Your task to perform on an android device: Search for razer blade on target.com, select the first entry, add it to the cart, then select checkout. Image 0: 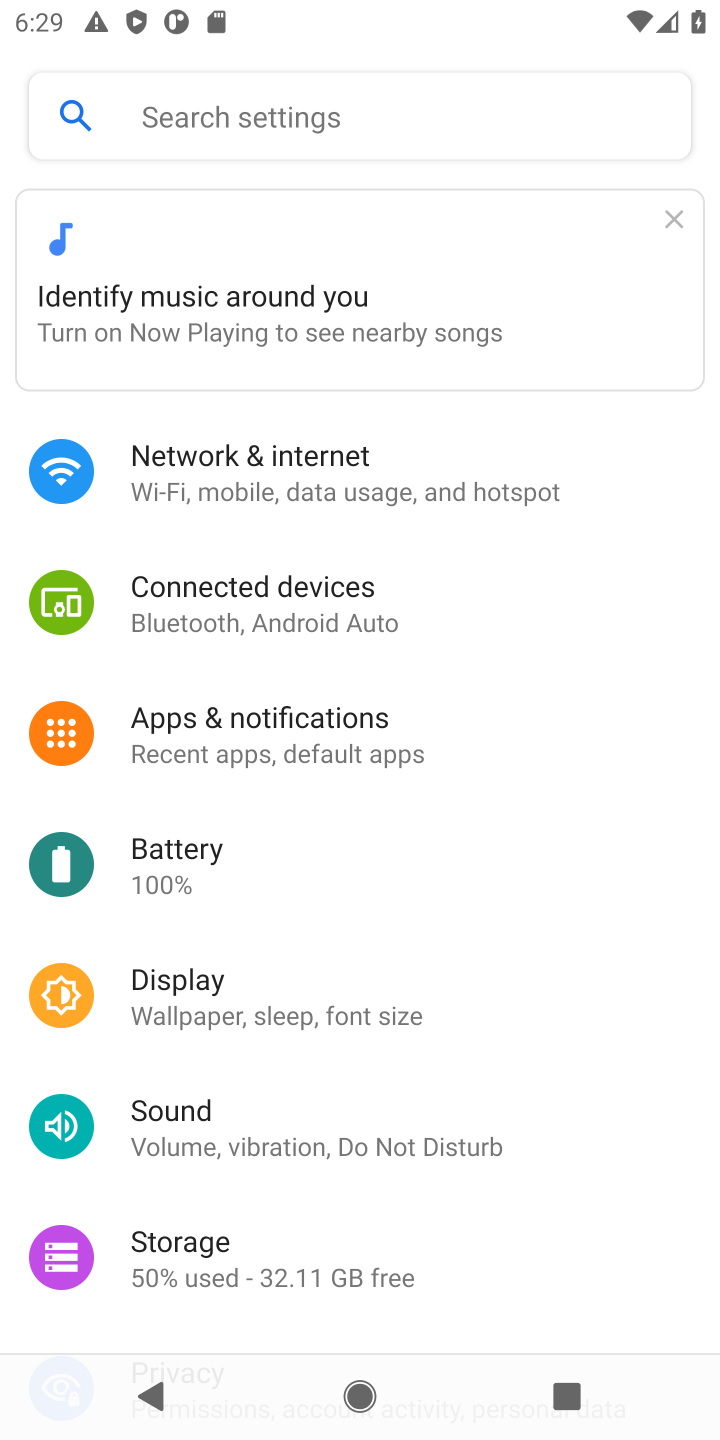
Step 0: press home button
Your task to perform on an android device: Search for razer blade on target.com, select the first entry, add it to the cart, then select checkout. Image 1: 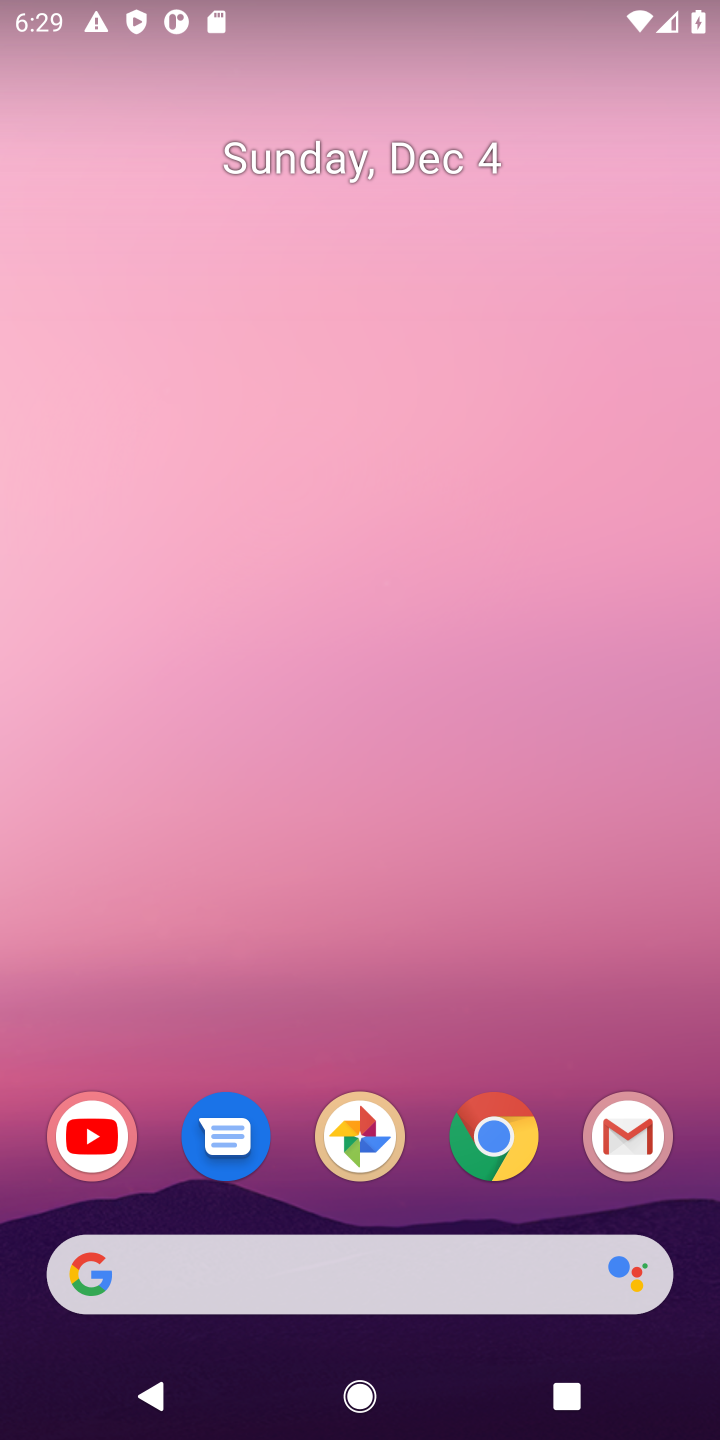
Step 1: click (501, 1137)
Your task to perform on an android device: Search for razer blade on target.com, select the first entry, add it to the cart, then select checkout. Image 2: 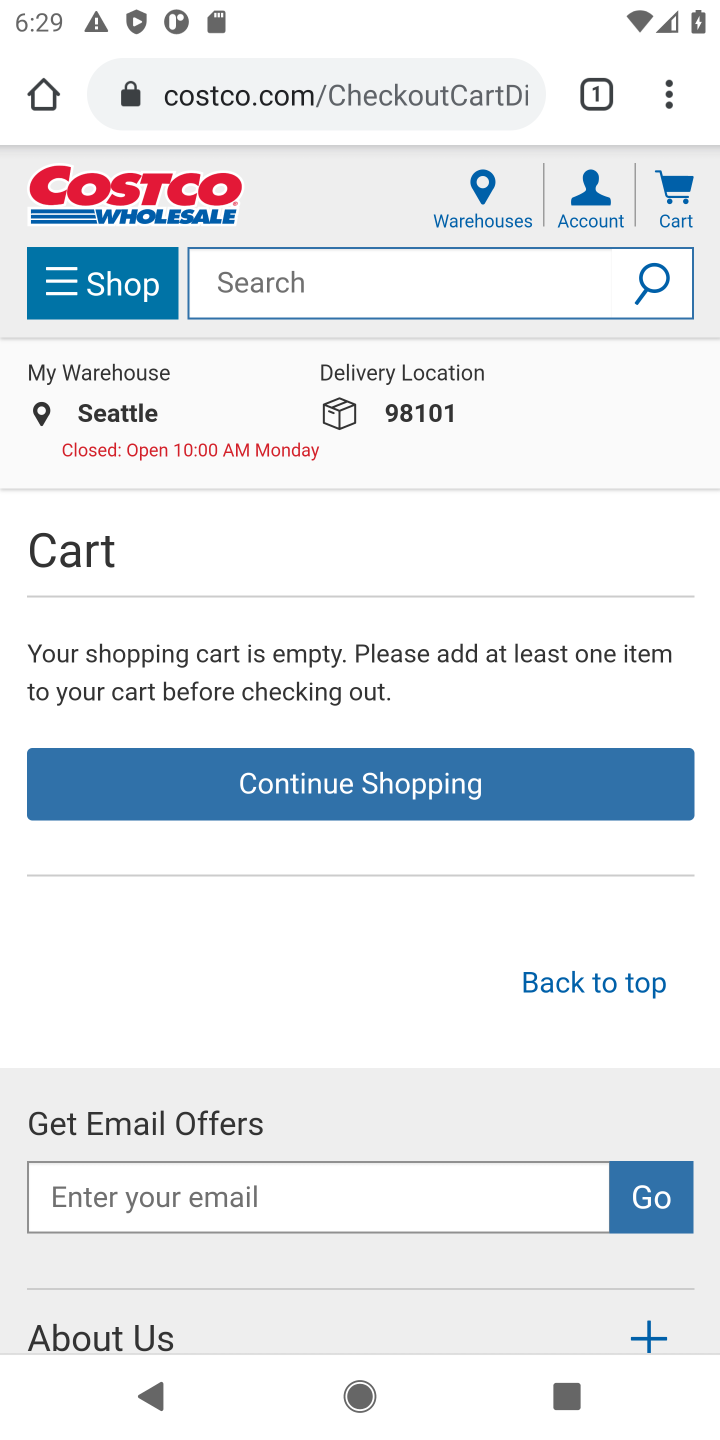
Step 2: click (310, 94)
Your task to perform on an android device: Search for razer blade on target.com, select the first entry, add it to the cart, then select checkout. Image 3: 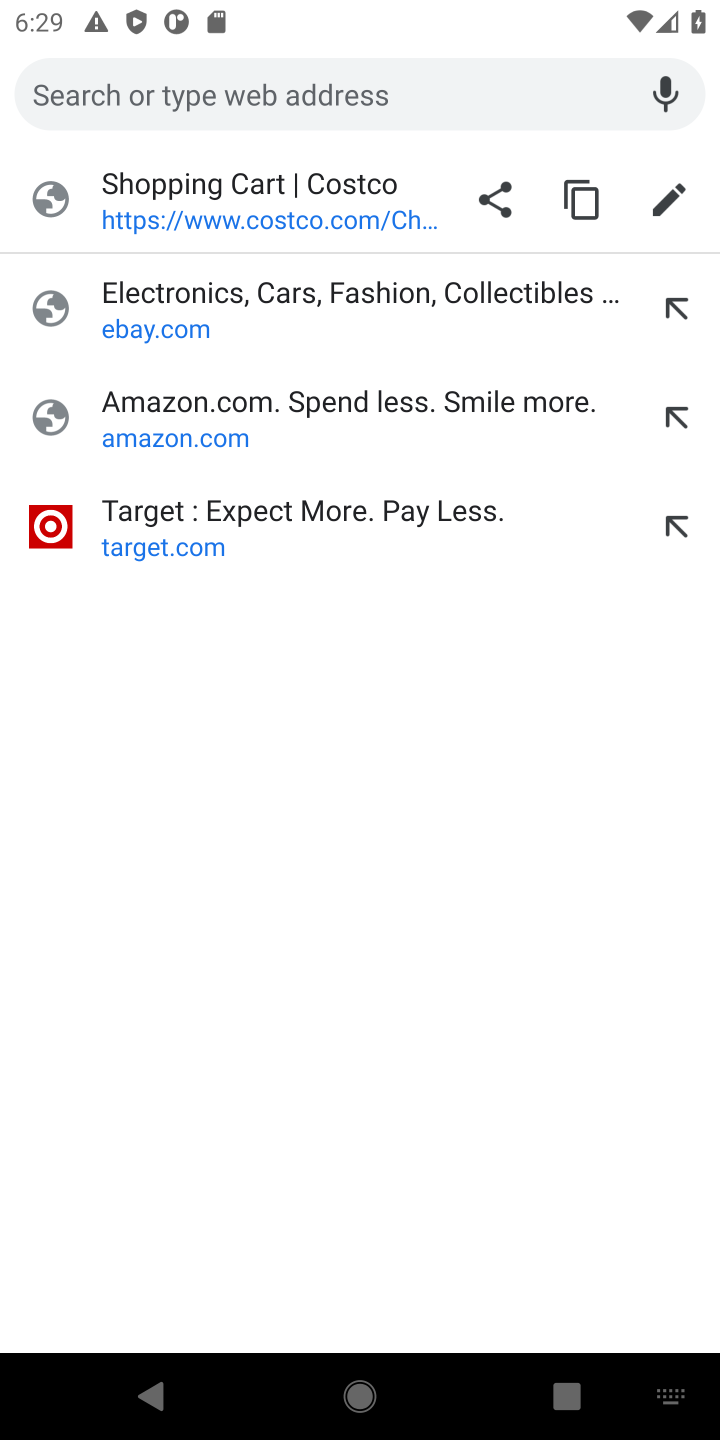
Step 3: click (163, 527)
Your task to perform on an android device: Search for razer blade on target.com, select the first entry, add it to the cart, then select checkout. Image 4: 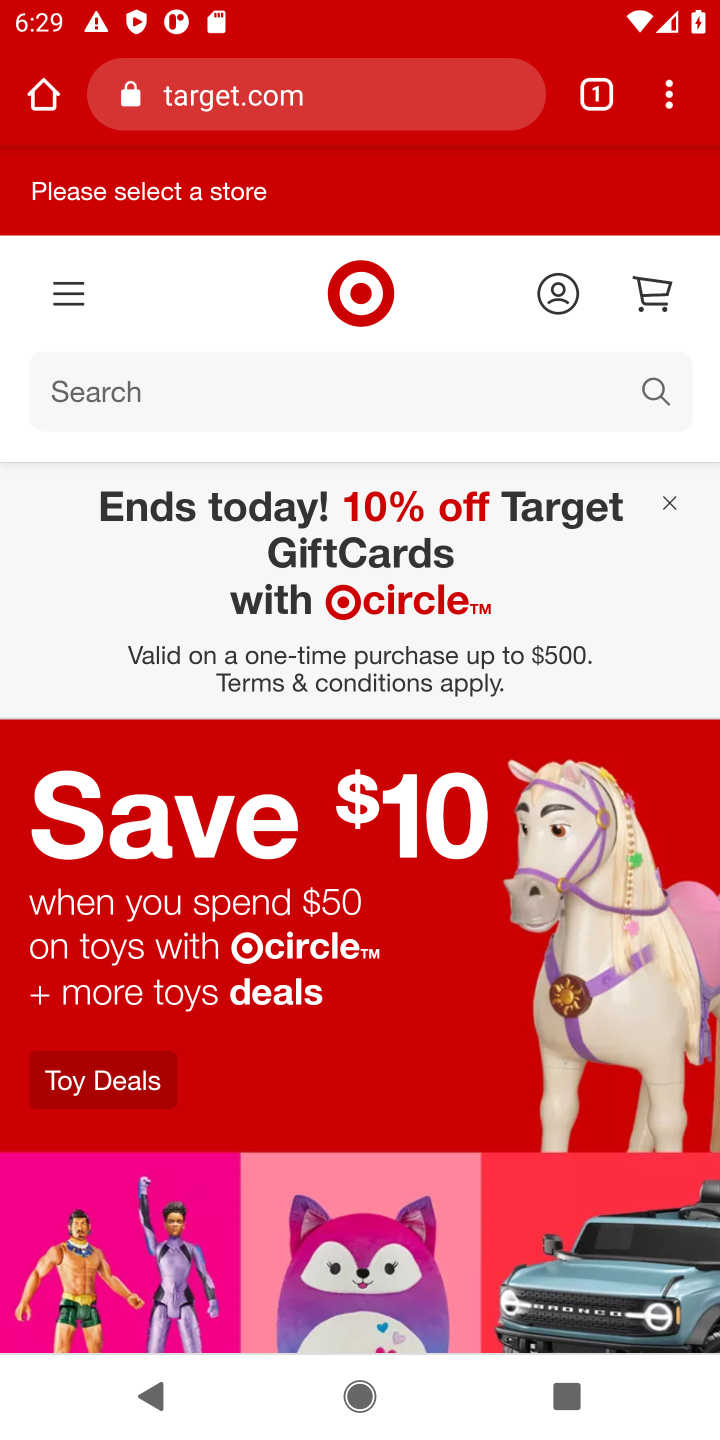
Step 4: click (107, 391)
Your task to perform on an android device: Search for razer blade on target.com, select the first entry, add it to the cart, then select checkout. Image 5: 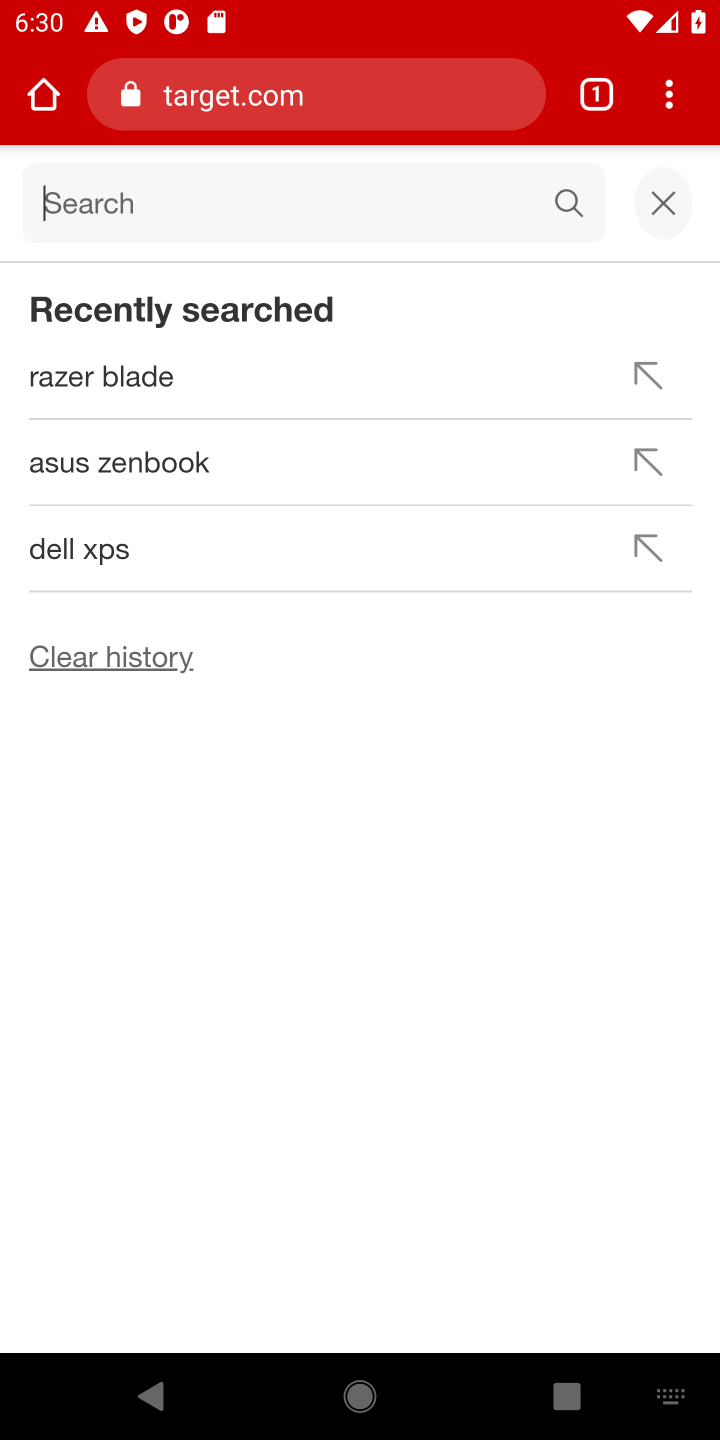
Step 5: type "razer blade"
Your task to perform on an android device: Search for razer blade on target.com, select the first entry, add it to the cart, then select checkout. Image 6: 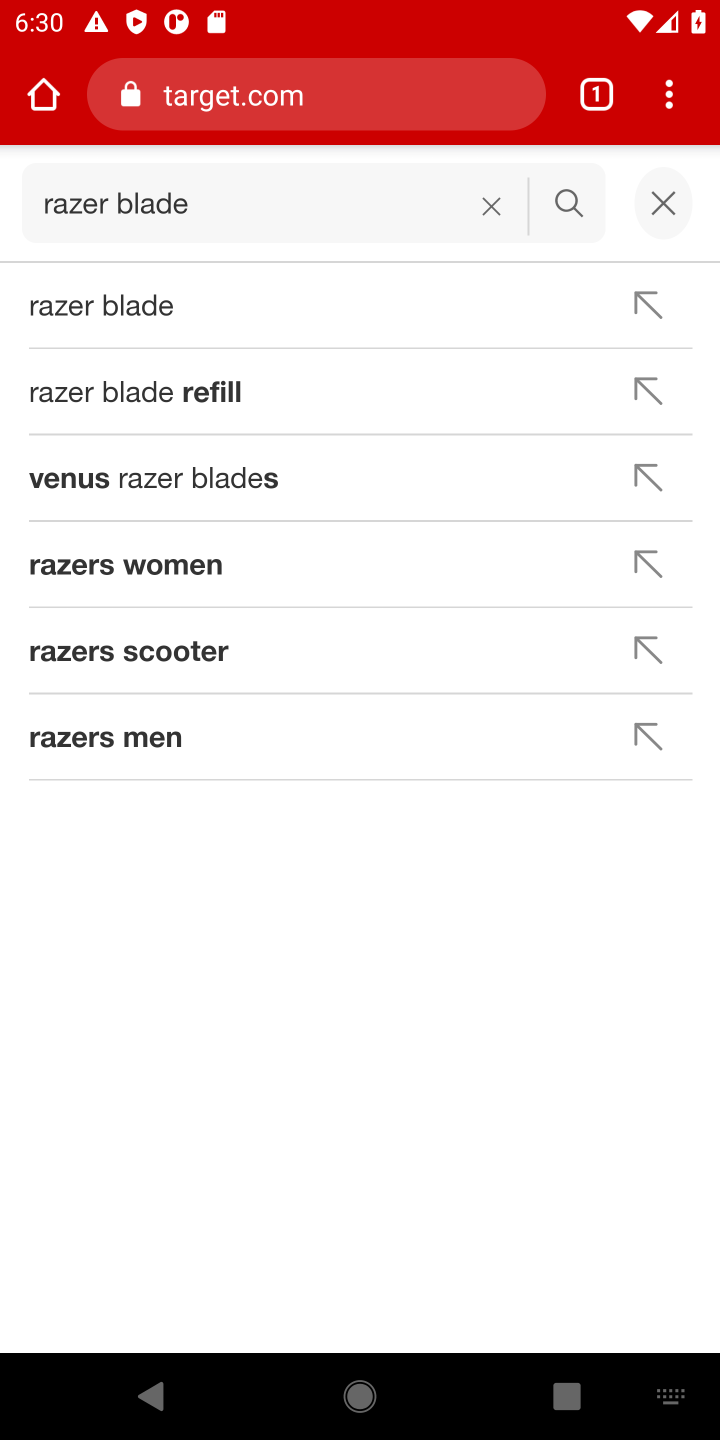
Step 6: click (33, 279)
Your task to perform on an android device: Search for razer blade on target.com, select the first entry, add it to the cart, then select checkout. Image 7: 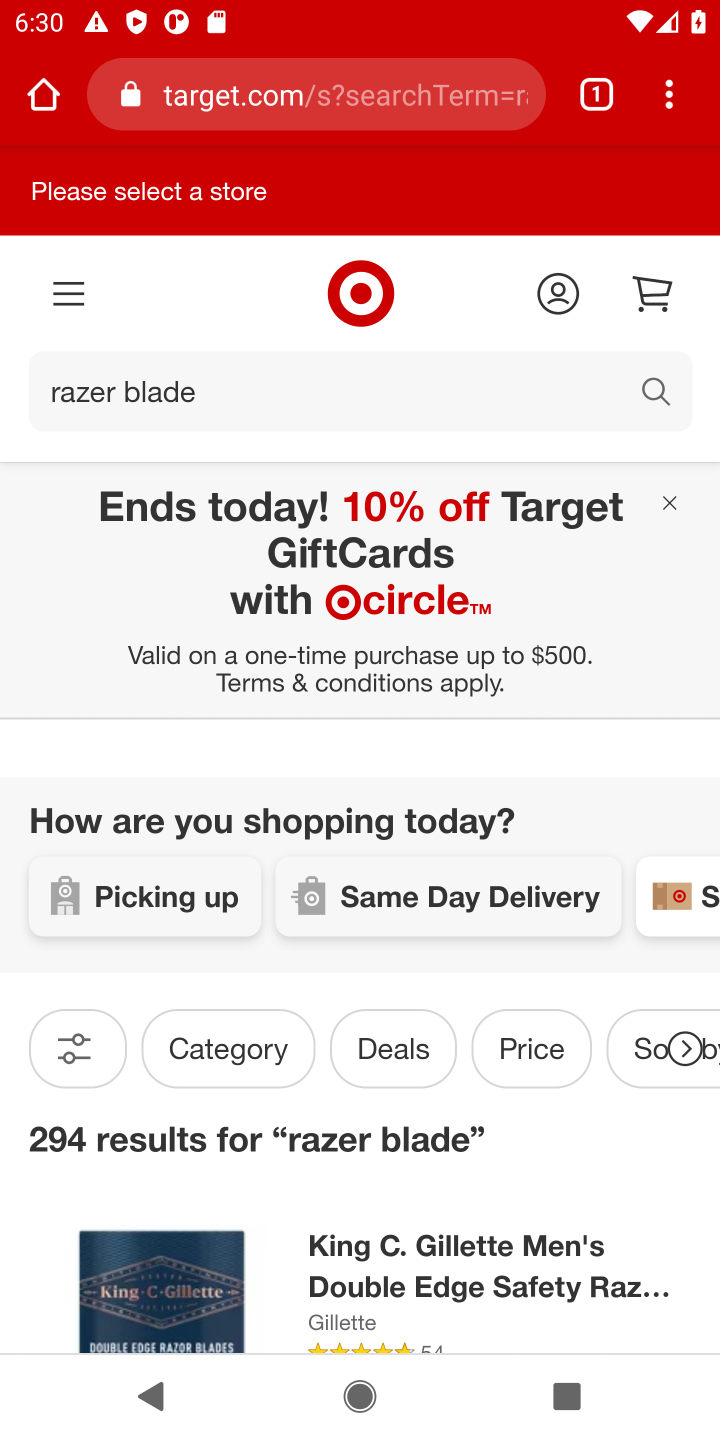
Step 7: task complete